Your task to perform on an android device: View the shopping cart on target.com. Image 0: 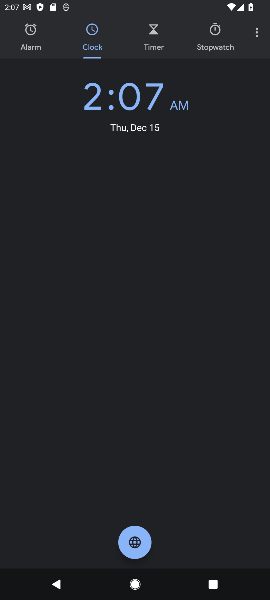
Step 0: press home button
Your task to perform on an android device: View the shopping cart on target.com. Image 1: 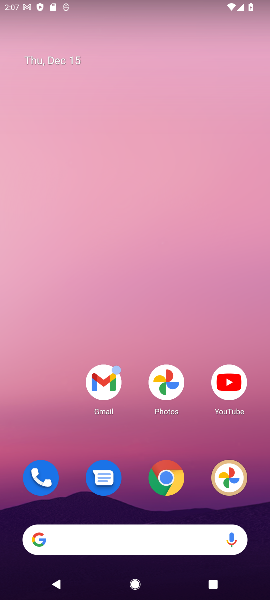
Step 1: click (166, 478)
Your task to perform on an android device: View the shopping cart on target.com. Image 2: 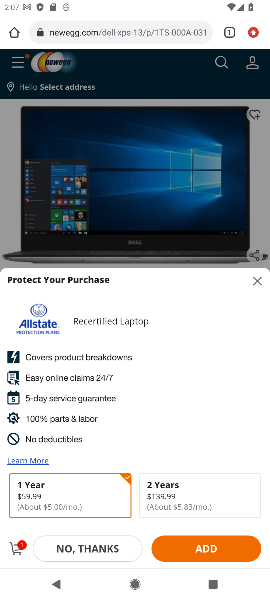
Step 2: click (100, 32)
Your task to perform on an android device: View the shopping cart on target.com. Image 3: 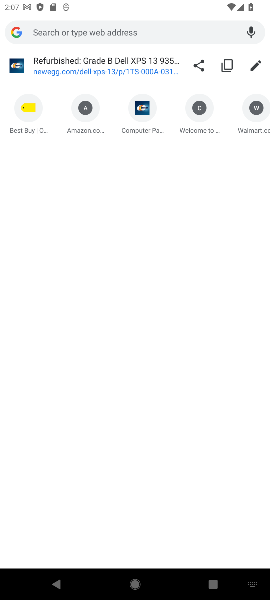
Step 3: type "target.com"
Your task to perform on an android device: View the shopping cart on target.com. Image 4: 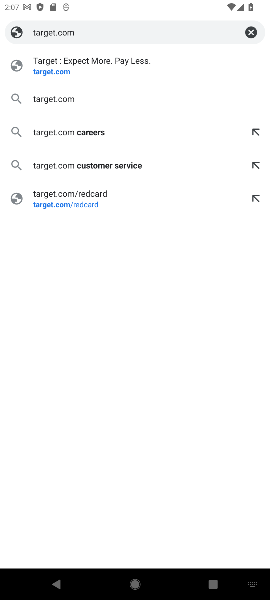
Step 4: click (40, 71)
Your task to perform on an android device: View the shopping cart on target.com. Image 5: 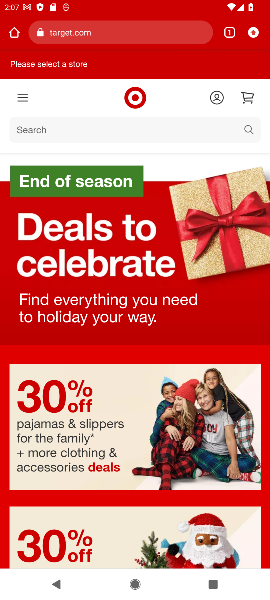
Step 5: click (246, 98)
Your task to perform on an android device: View the shopping cart on target.com. Image 6: 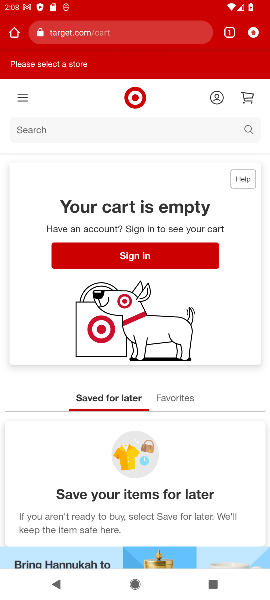
Step 6: task complete